Your task to perform on an android device: Search for Mexican restaurants on Maps Image 0: 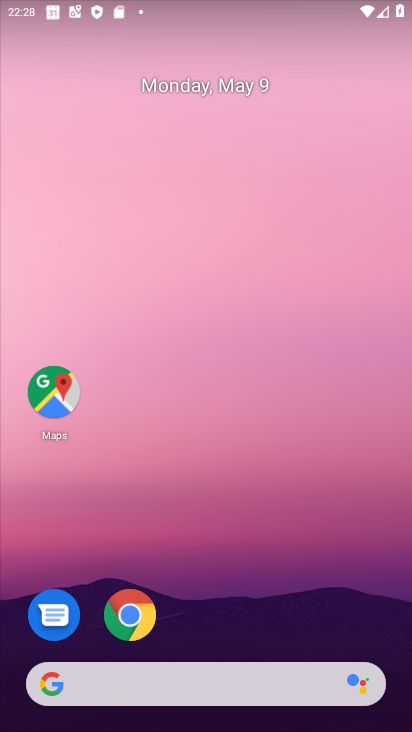
Step 0: click (50, 392)
Your task to perform on an android device: Search for Mexican restaurants on Maps Image 1: 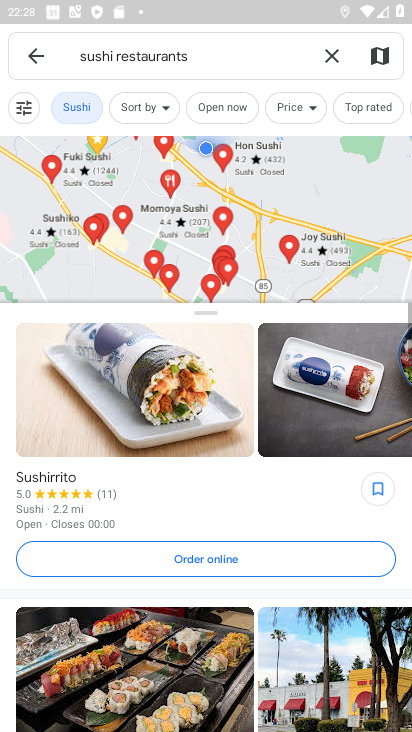
Step 1: click (334, 54)
Your task to perform on an android device: Search for Mexican restaurants on Maps Image 2: 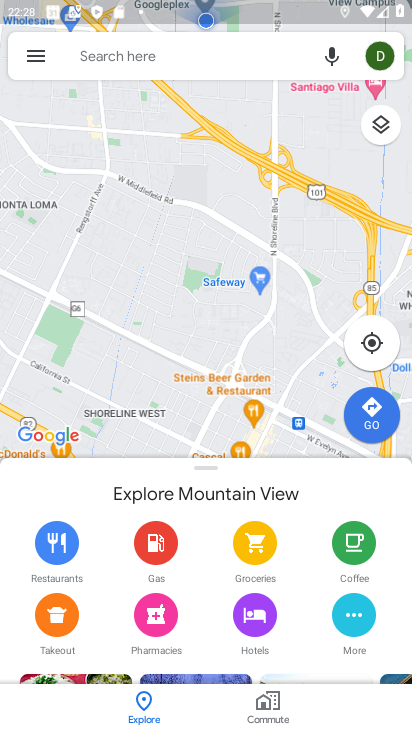
Step 2: type "Mexican restaurants"
Your task to perform on an android device: Search for Mexican restaurants on Maps Image 3: 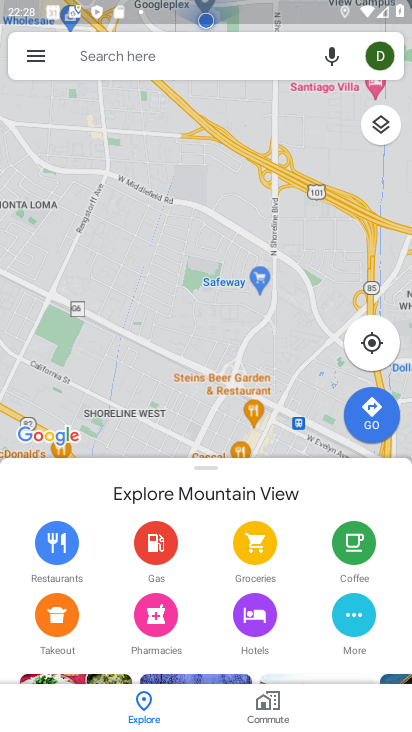
Step 3: click (134, 52)
Your task to perform on an android device: Search for Mexican restaurants on Maps Image 4: 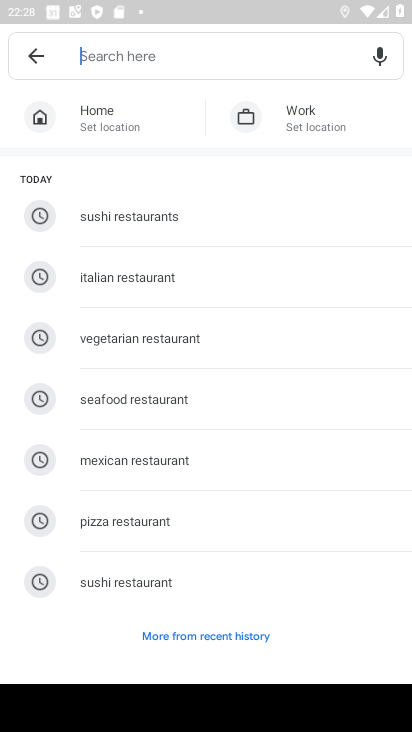
Step 4: type "mexican restaurants"
Your task to perform on an android device: Search for Mexican restaurants on Maps Image 5: 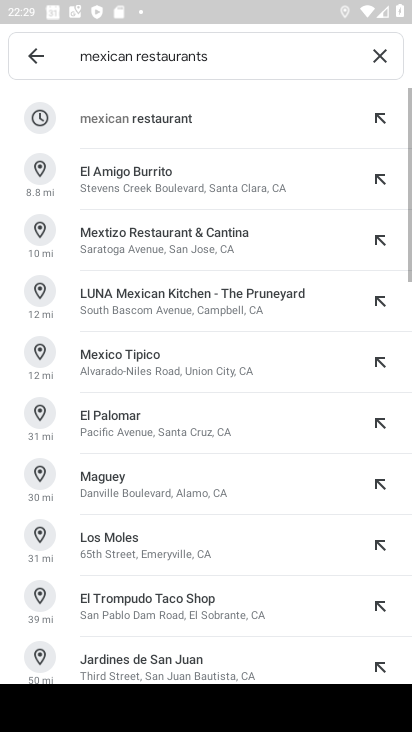
Step 5: click (153, 126)
Your task to perform on an android device: Search for Mexican restaurants on Maps Image 6: 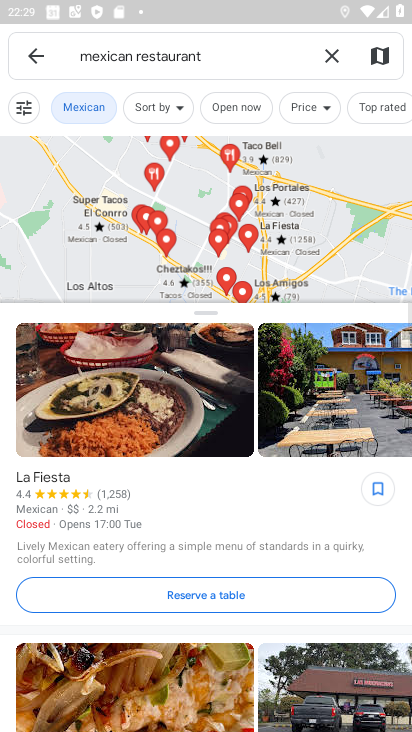
Step 6: task complete